Your task to perform on an android device: change the clock display to analog Image 0: 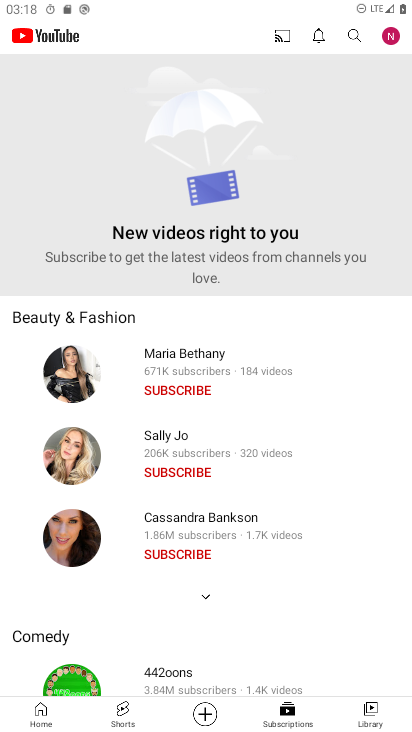
Step 0: press home button
Your task to perform on an android device: change the clock display to analog Image 1: 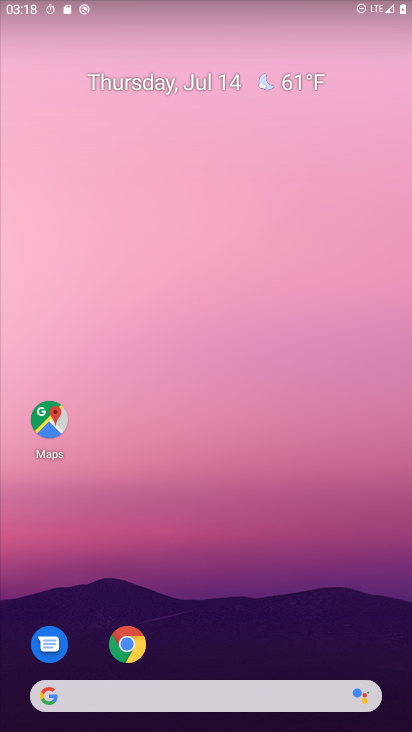
Step 1: drag from (312, 602) to (254, 62)
Your task to perform on an android device: change the clock display to analog Image 2: 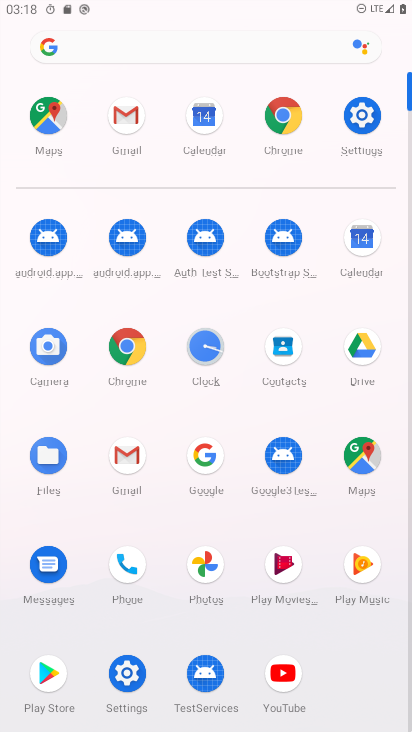
Step 2: click (203, 351)
Your task to perform on an android device: change the clock display to analog Image 3: 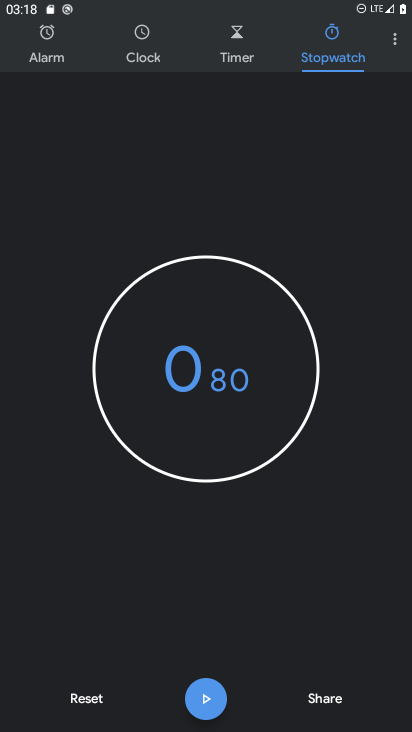
Step 3: click (395, 38)
Your task to perform on an android device: change the clock display to analog Image 4: 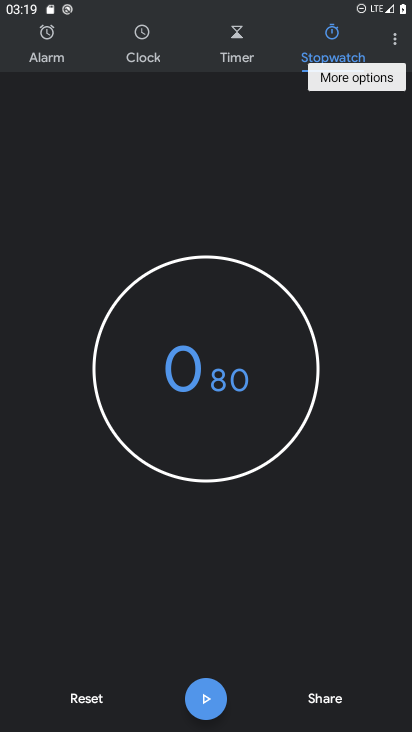
Step 4: click (395, 38)
Your task to perform on an android device: change the clock display to analog Image 5: 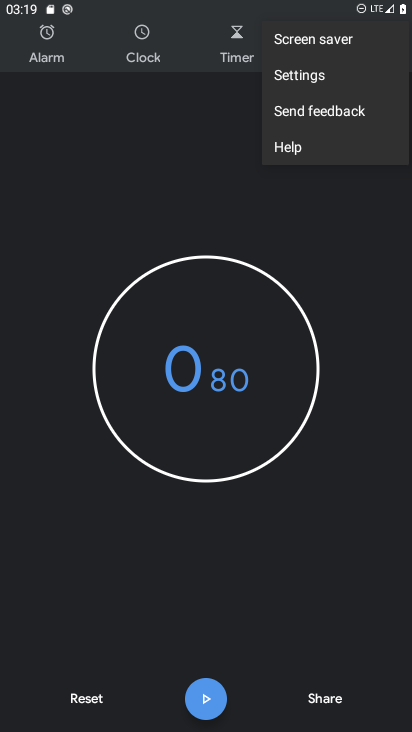
Step 5: click (271, 79)
Your task to perform on an android device: change the clock display to analog Image 6: 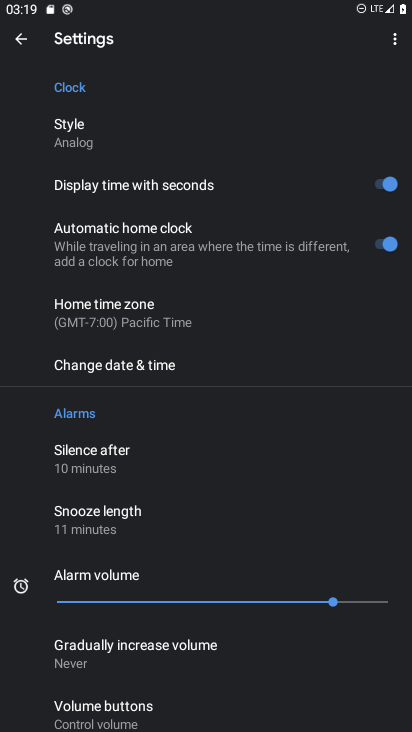
Step 6: task complete